Your task to perform on an android device: toggle javascript in the chrome app Image 0: 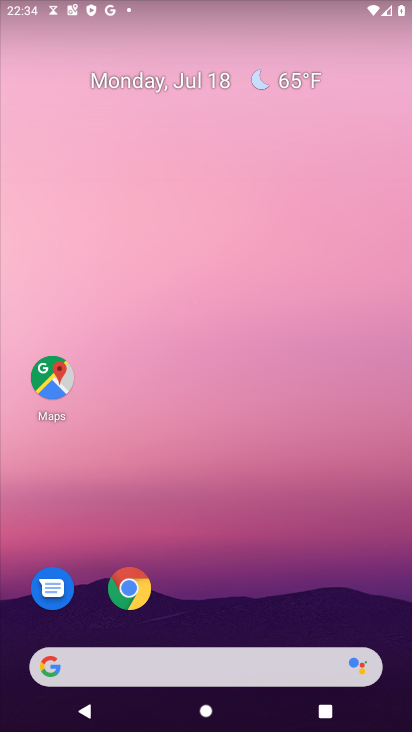
Step 0: click (129, 588)
Your task to perform on an android device: toggle javascript in the chrome app Image 1: 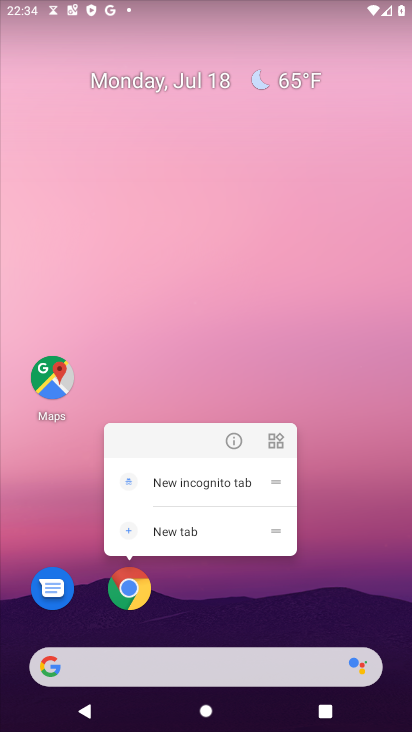
Step 1: click (131, 587)
Your task to perform on an android device: toggle javascript in the chrome app Image 2: 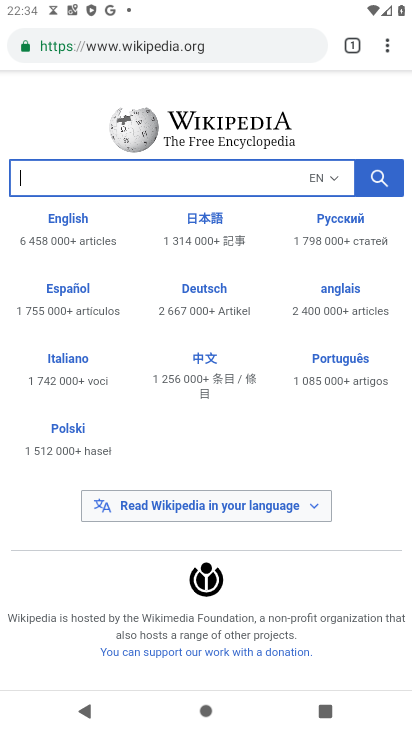
Step 2: click (389, 42)
Your task to perform on an android device: toggle javascript in the chrome app Image 3: 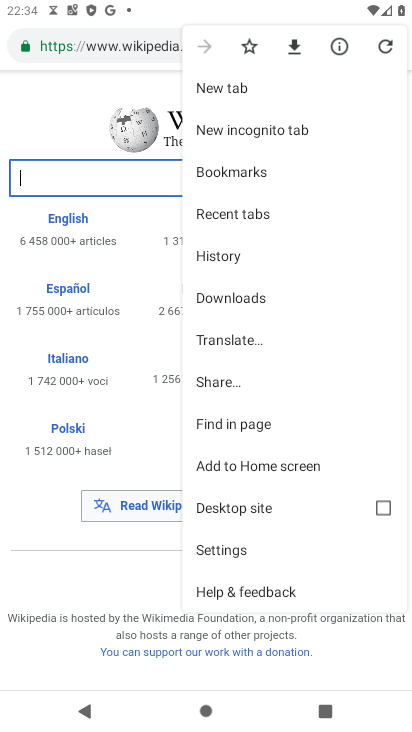
Step 3: click (240, 547)
Your task to perform on an android device: toggle javascript in the chrome app Image 4: 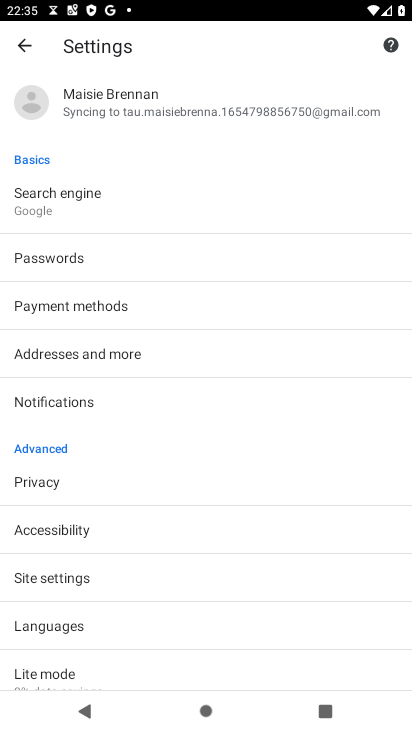
Step 4: click (77, 579)
Your task to perform on an android device: toggle javascript in the chrome app Image 5: 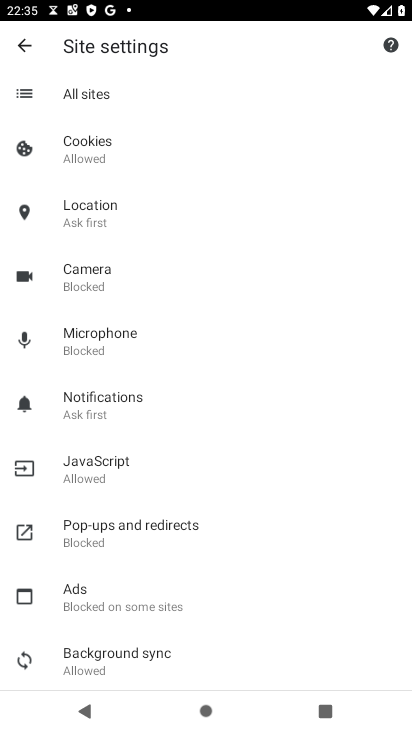
Step 5: click (115, 467)
Your task to perform on an android device: toggle javascript in the chrome app Image 6: 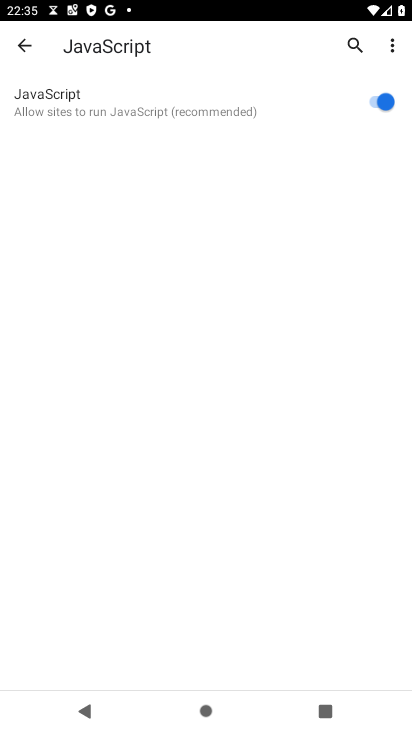
Step 6: click (376, 102)
Your task to perform on an android device: toggle javascript in the chrome app Image 7: 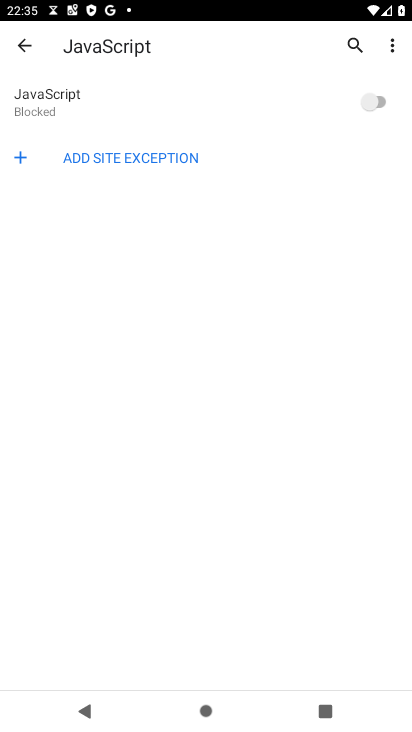
Step 7: task complete